Your task to perform on an android device: toggle location history Image 0: 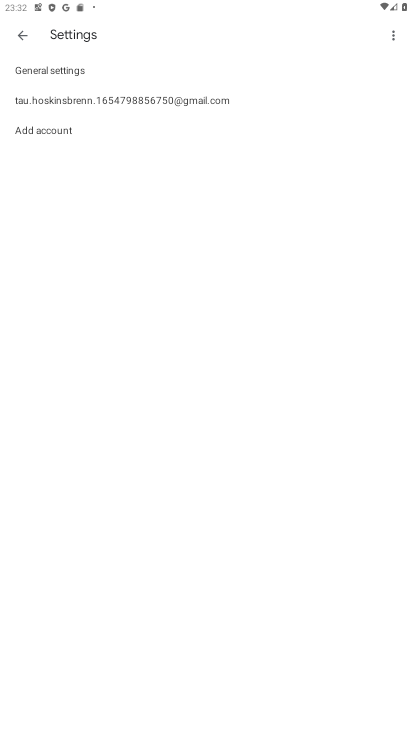
Step 0: press home button
Your task to perform on an android device: toggle location history Image 1: 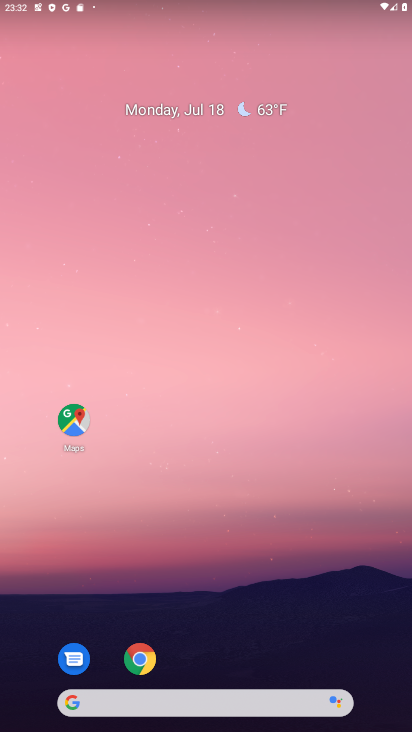
Step 1: press home button
Your task to perform on an android device: toggle location history Image 2: 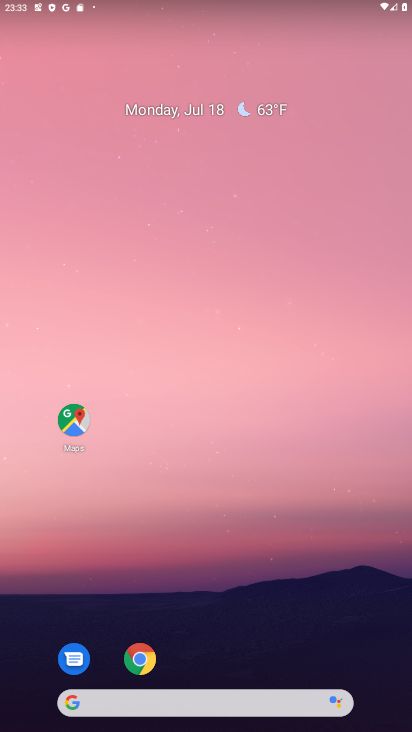
Step 2: drag from (263, 547) to (296, 86)
Your task to perform on an android device: toggle location history Image 3: 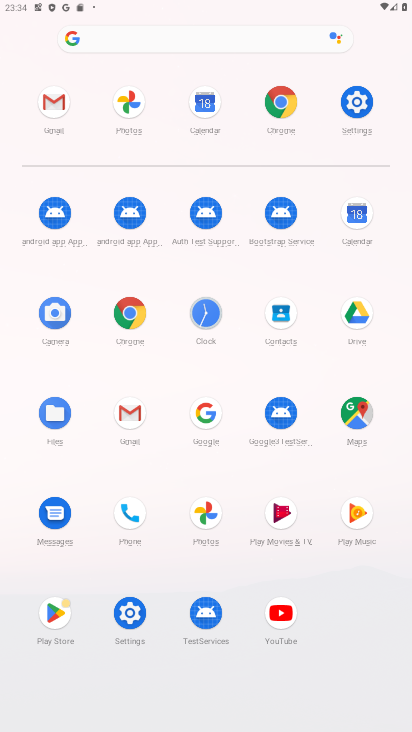
Step 3: click (355, 428)
Your task to perform on an android device: toggle location history Image 4: 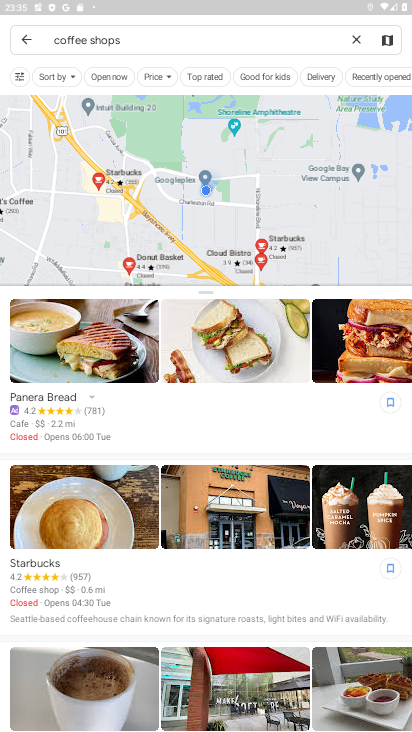
Step 4: click (25, 35)
Your task to perform on an android device: toggle location history Image 5: 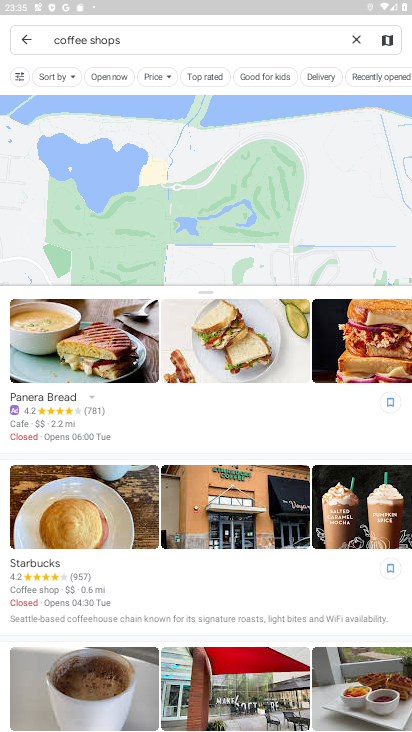
Step 5: click (25, 35)
Your task to perform on an android device: toggle location history Image 6: 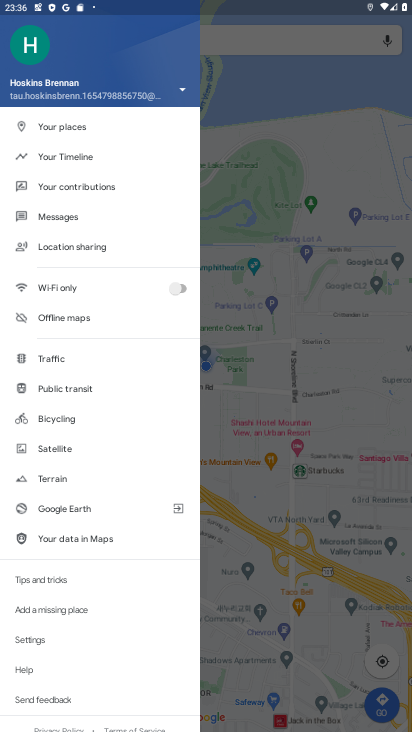
Step 6: click (43, 153)
Your task to perform on an android device: toggle location history Image 7: 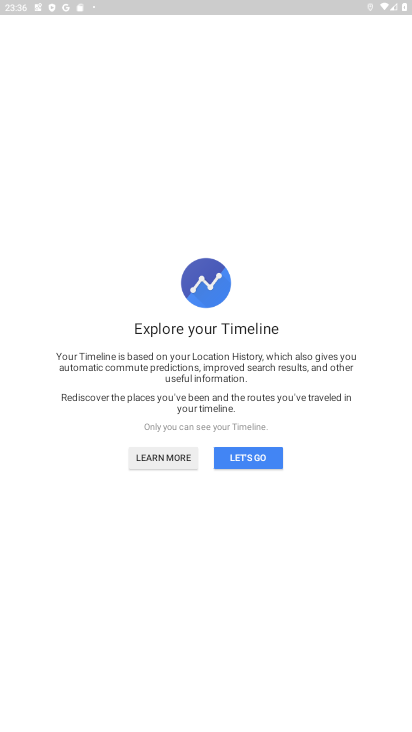
Step 7: click (227, 455)
Your task to perform on an android device: toggle location history Image 8: 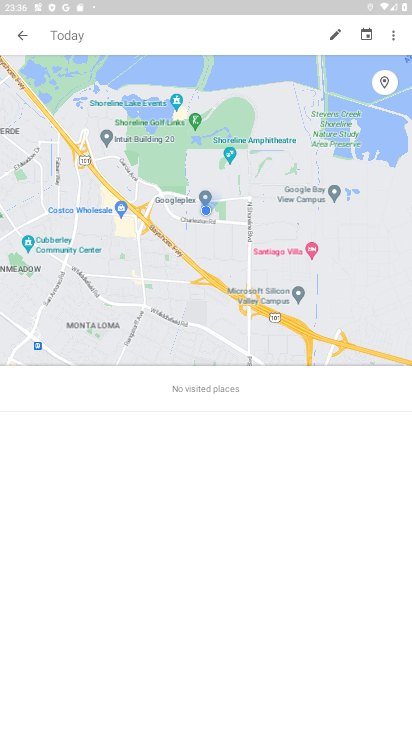
Step 8: click (412, 24)
Your task to perform on an android device: toggle location history Image 9: 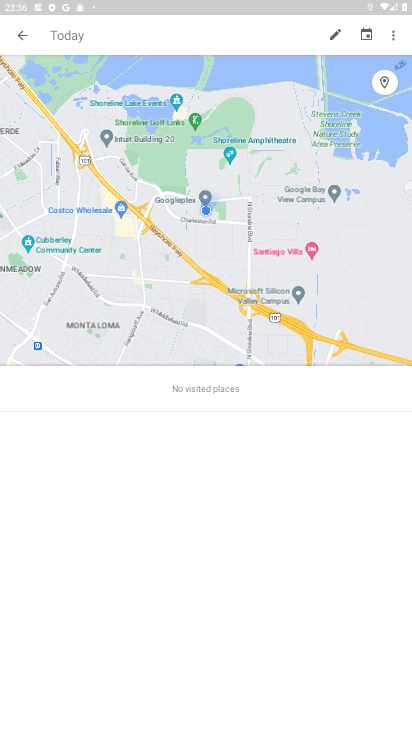
Step 9: click (387, 42)
Your task to perform on an android device: toggle location history Image 10: 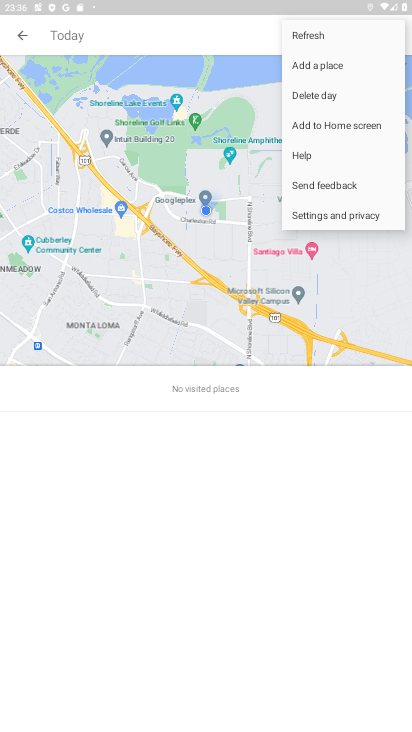
Step 10: click (337, 219)
Your task to perform on an android device: toggle location history Image 11: 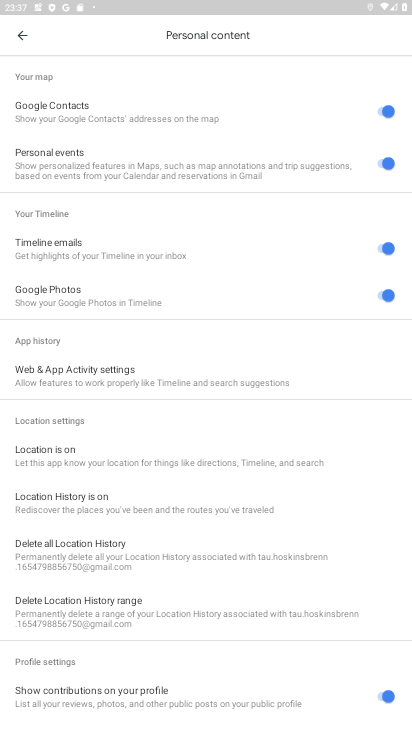
Step 11: click (58, 507)
Your task to perform on an android device: toggle location history Image 12: 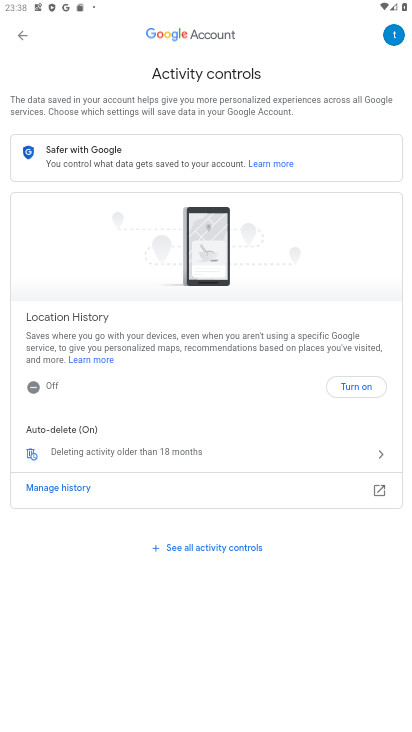
Step 12: click (358, 388)
Your task to perform on an android device: toggle location history Image 13: 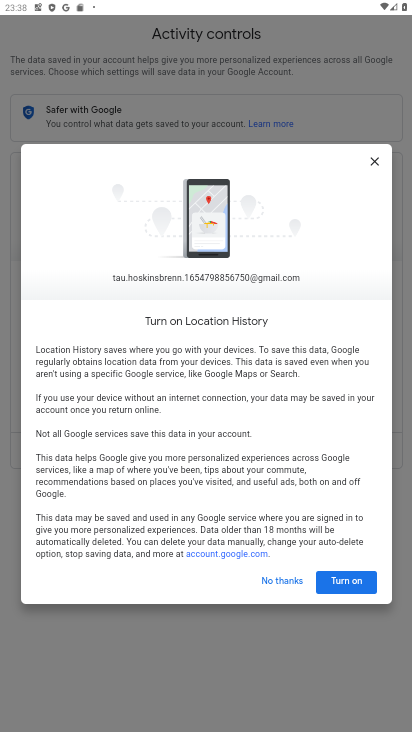
Step 13: click (335, 574)
Your task to perform on an android device: toggle location history Image 14: 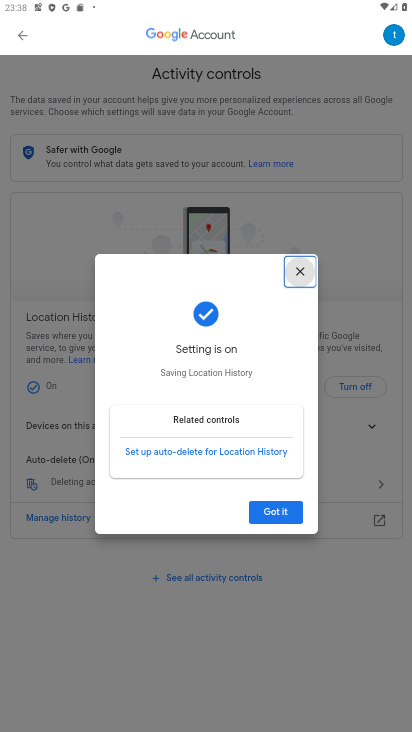
Step 14: click (292, 515)
Your task to perform on an android device: toggle location history Image 15: 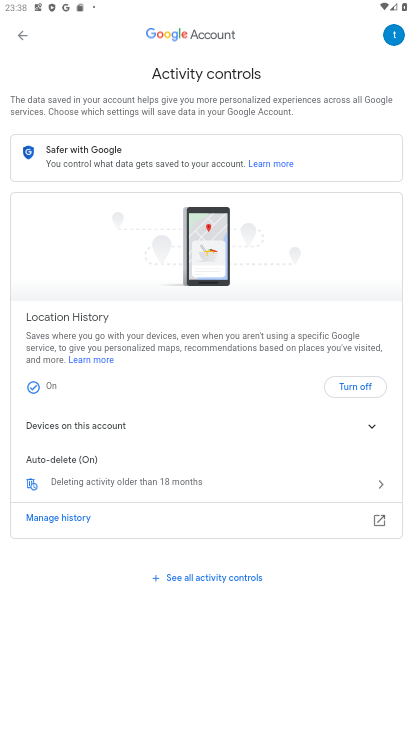
Step 15: task complete